Your task to perform on an android device: open app "Expedia: Hotels, Flights & Car" Image 0: 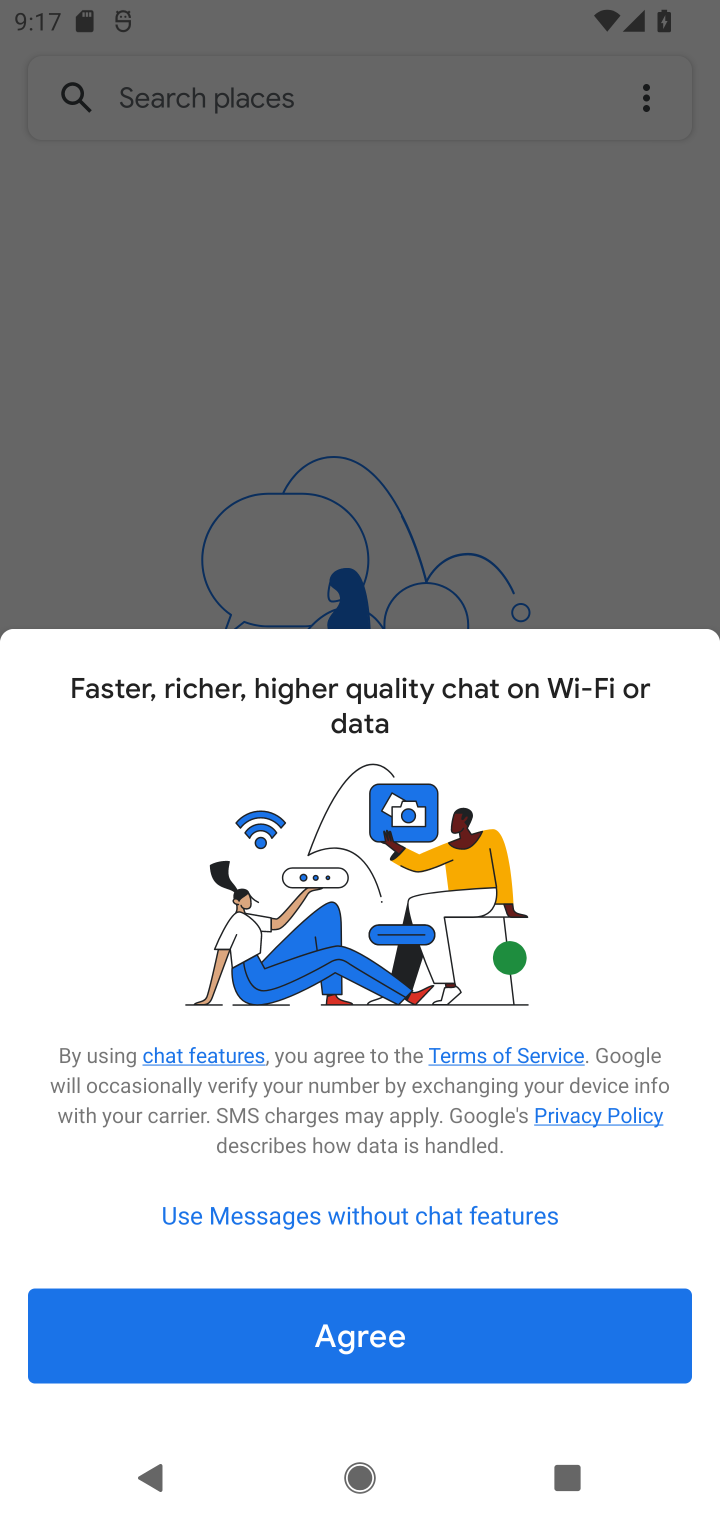
Step 0: press home button
Your task to perform on an android device: open app "Expedia: Hotels, Flights & Car" Image 1: 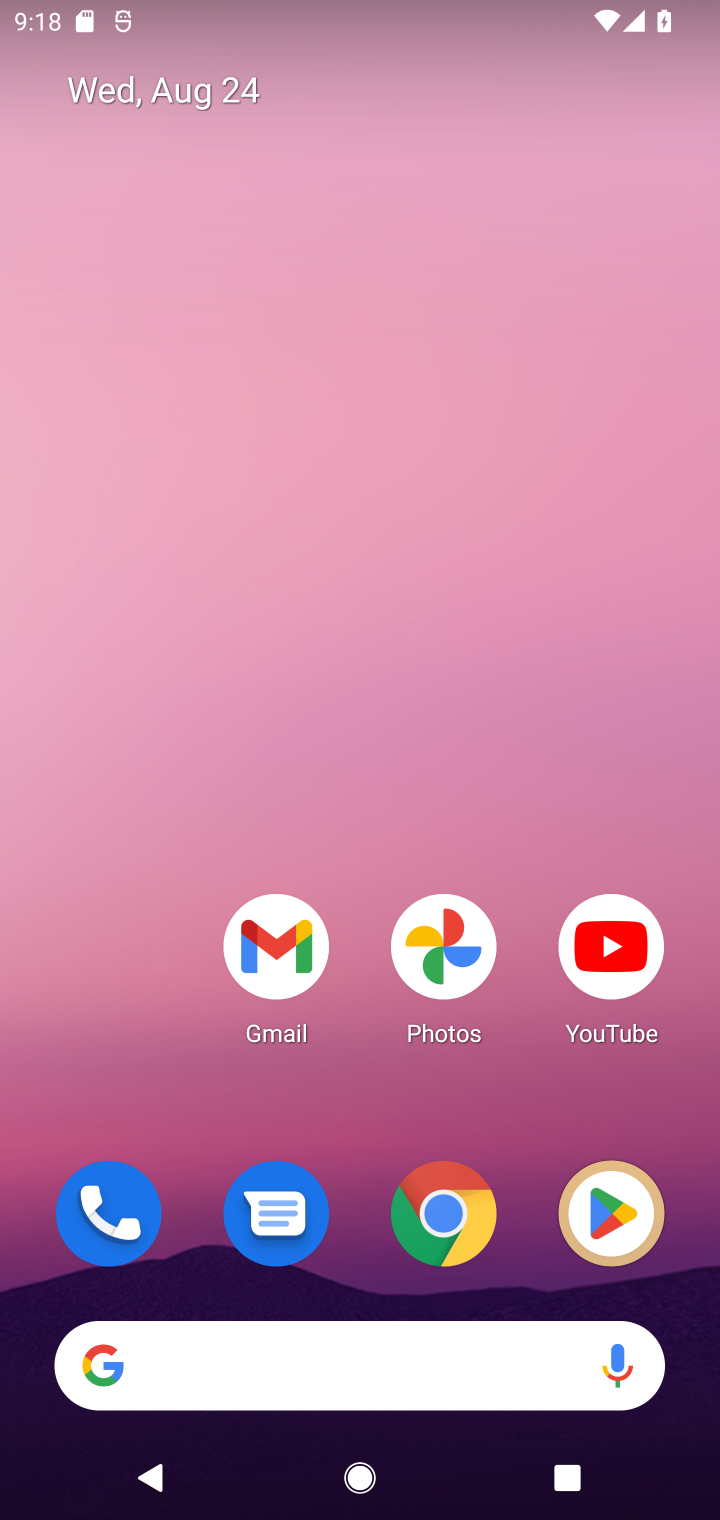
Step 1: drag from (329, 1260) to (340, 32)
Your task to perform on an android device: open app "Expedia: Hotels, Flights & Car" Image 2: 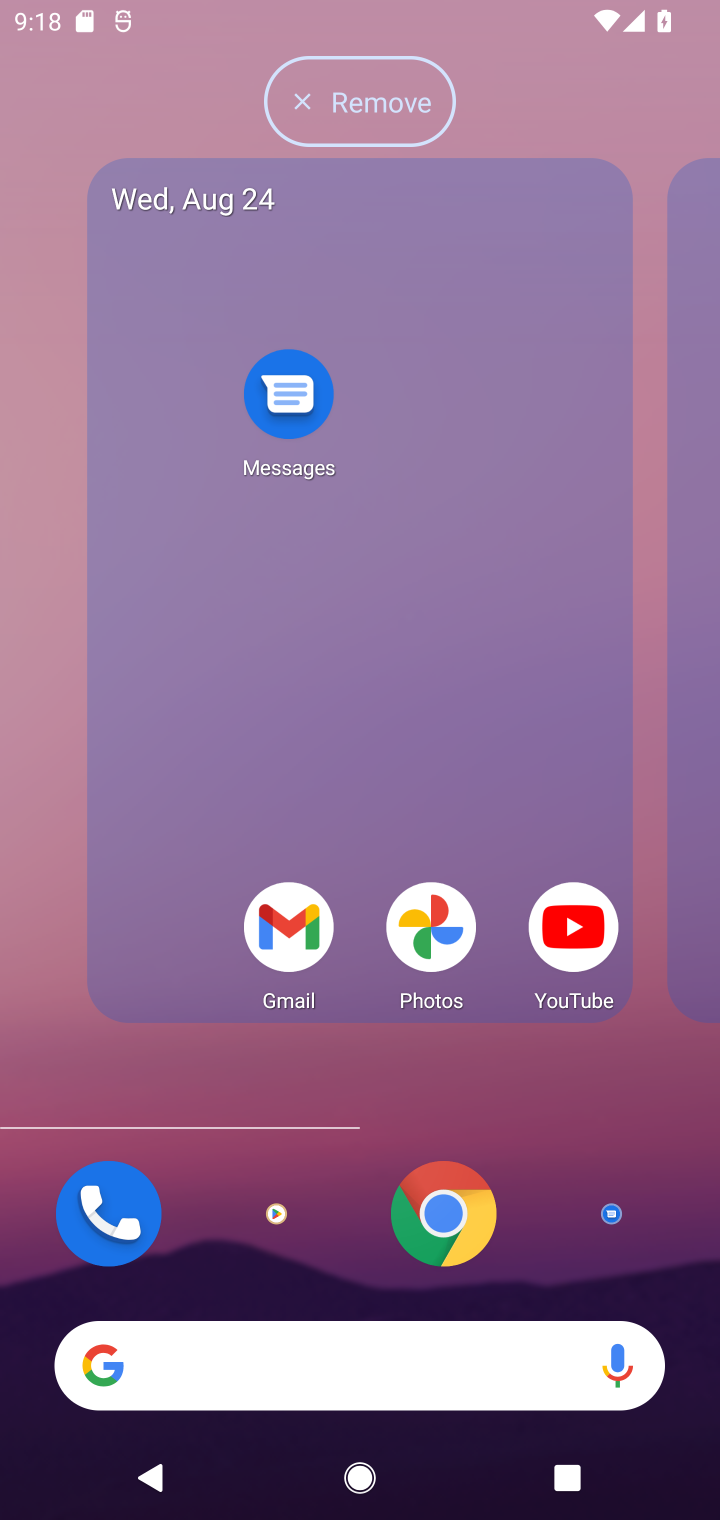
Step 2: click (96, 933)
Your task to perform on an android device: open app "Expedia: Hotels, Flights & Car" Image 3: 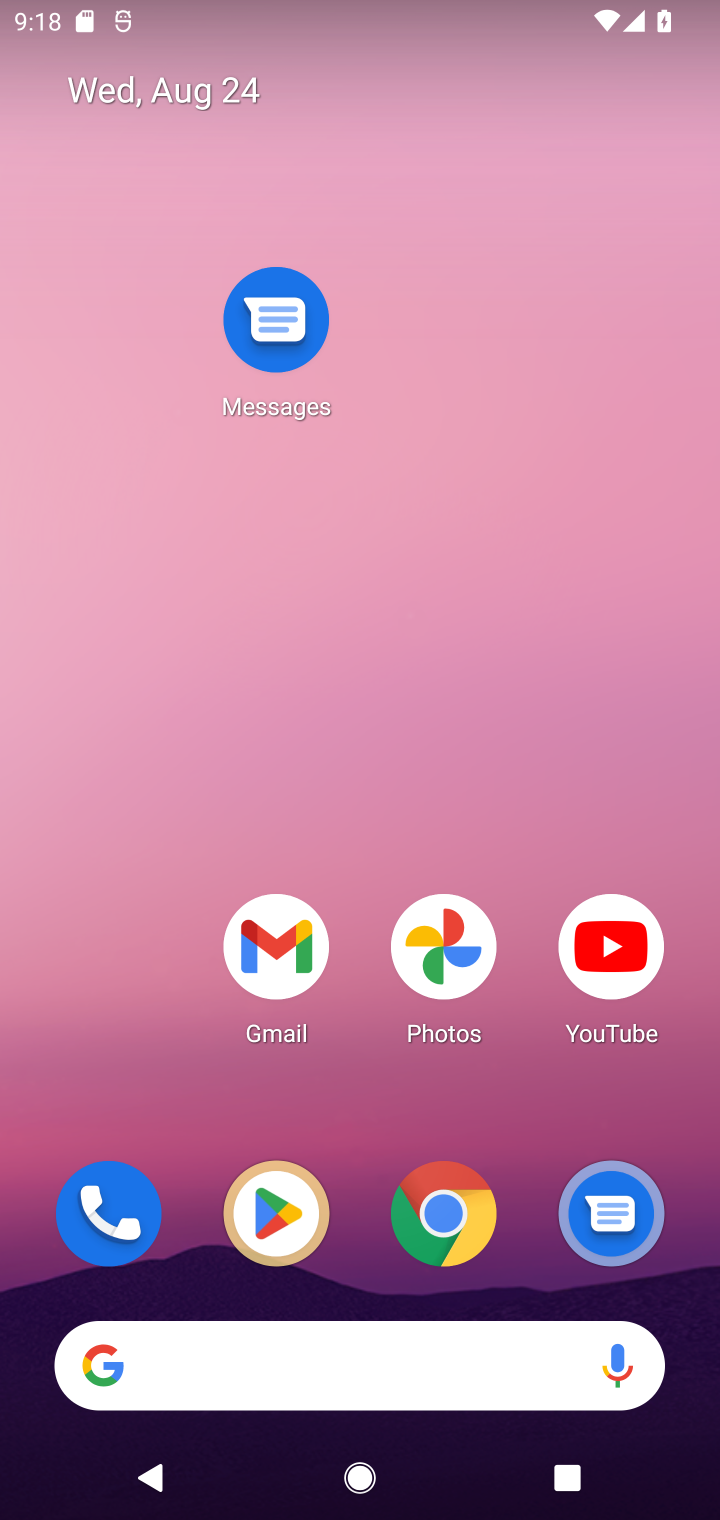
Step 3: click (301, 1223)
Your task to perform on an android device: open app "Expedia: Hotels, Flights & Car" Image 4: 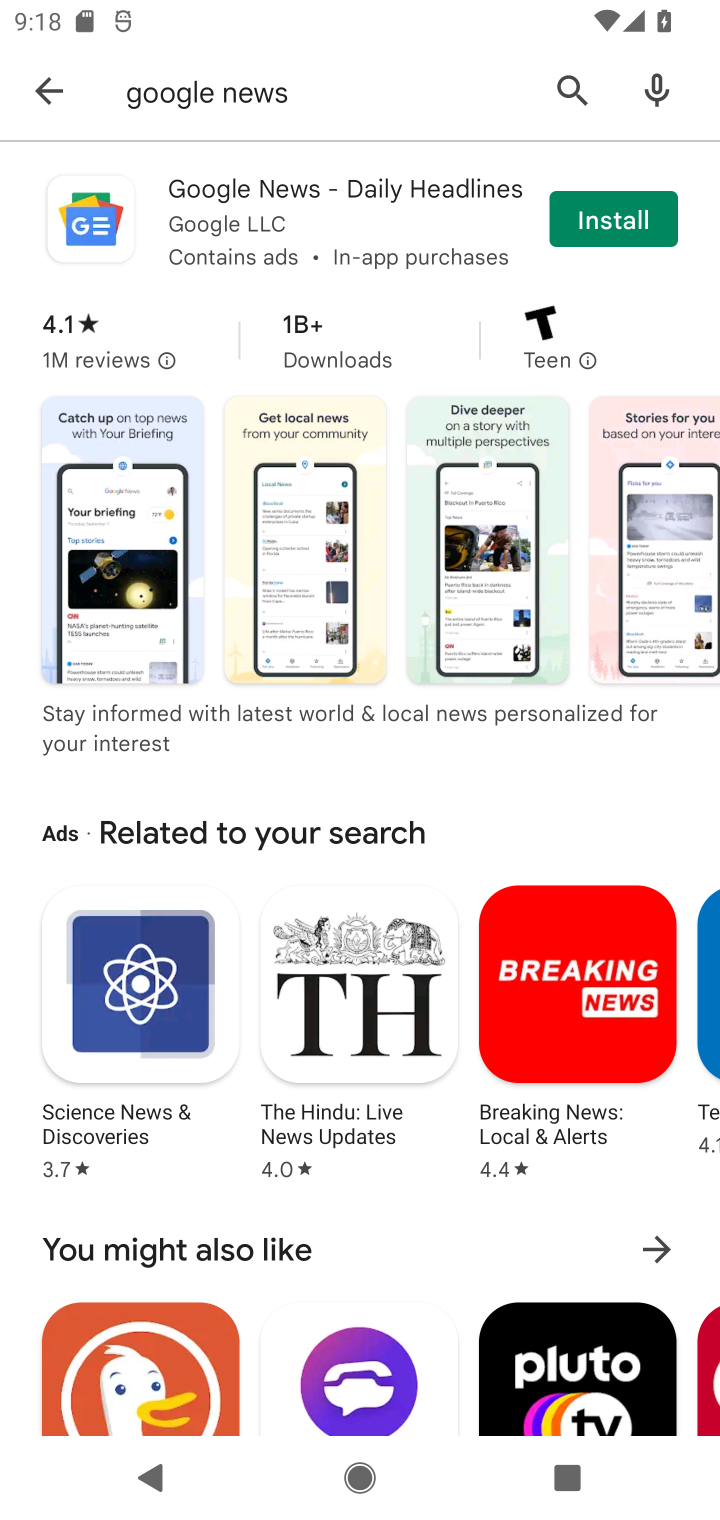
Step 4: click (314, 98)
Your task to perform on an android device: open app "Expedia: Hotels, Flights & Car" Image 5: 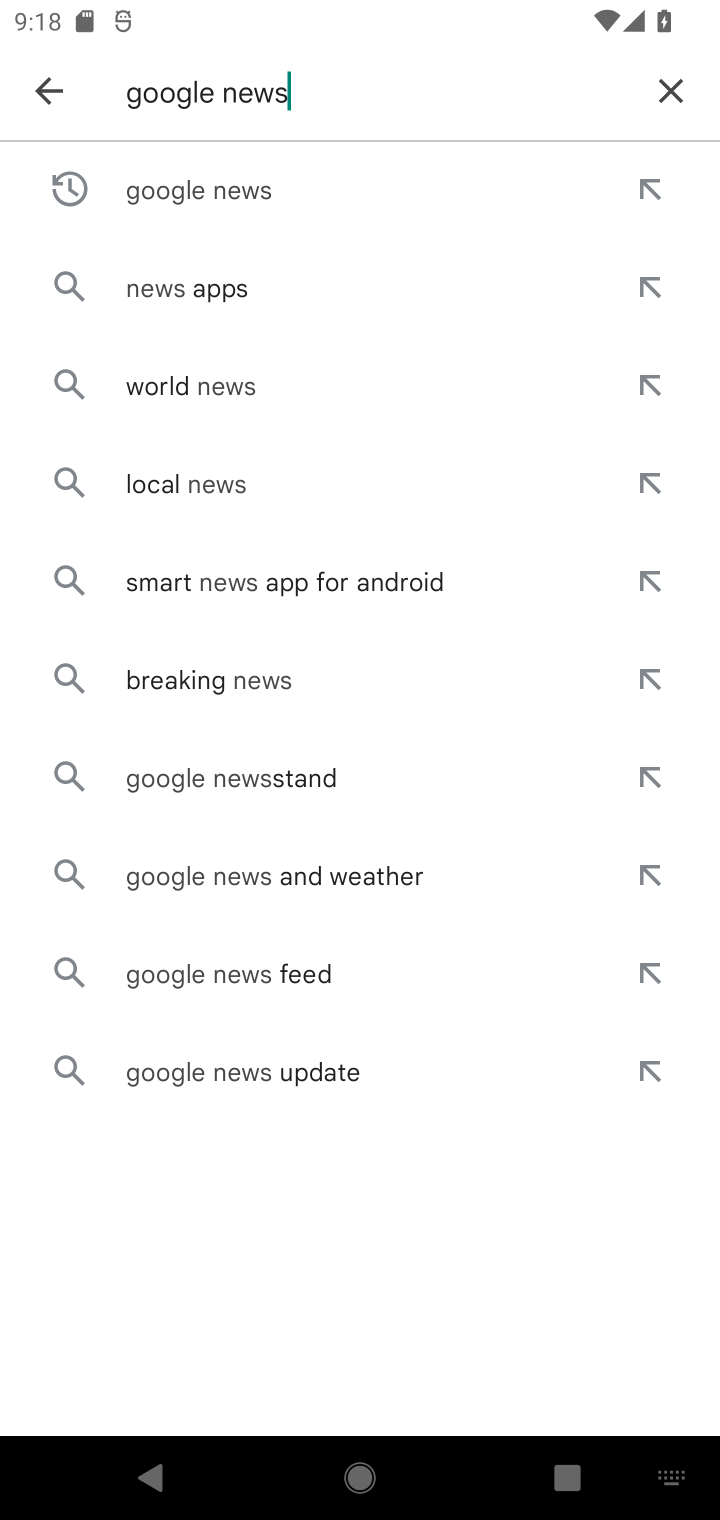
Step 5: click (677, 88)
Your task to perform on an android device: open app "Expedia: Hotels, Flights & Car" Image 6: 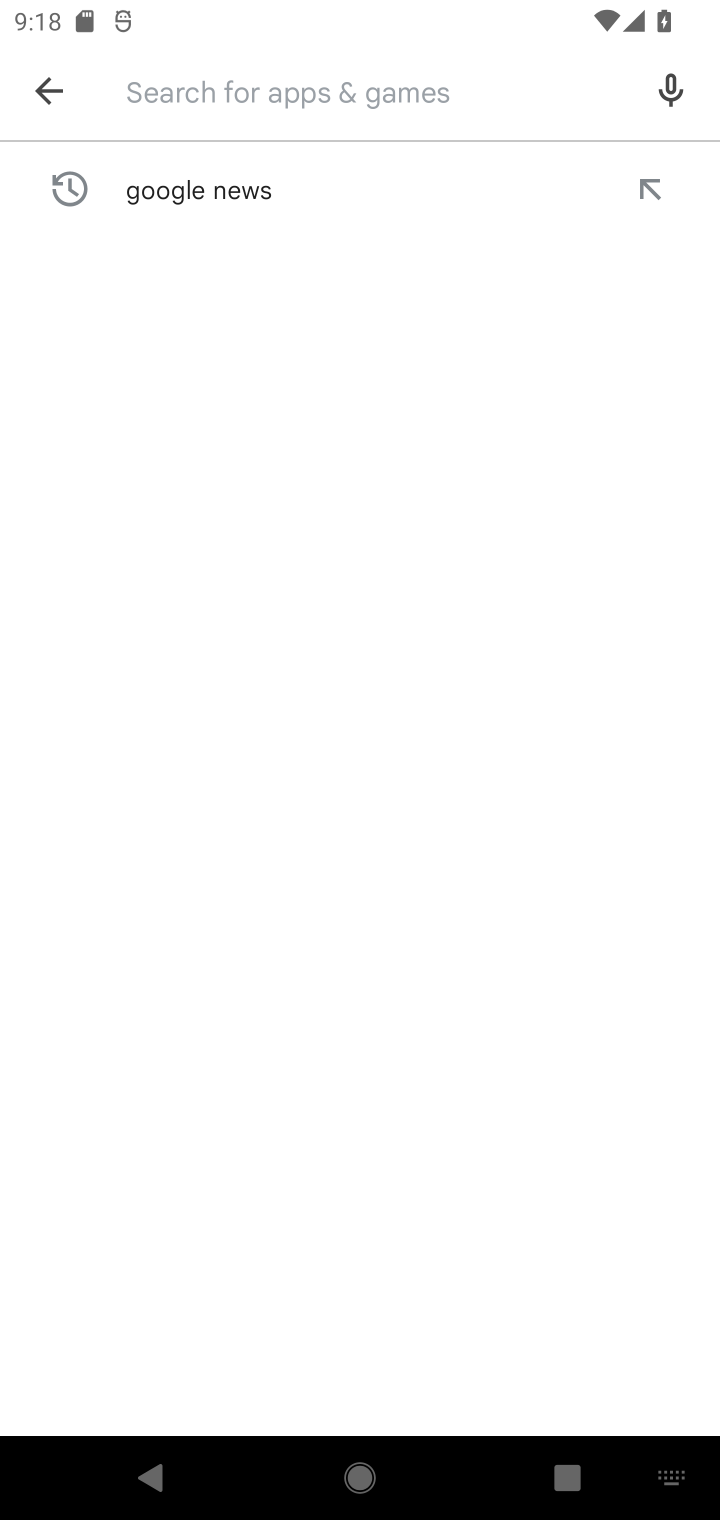
Step 6: type "expedia"
Your task to perform on an android device: open app "Expedia: Hotels, Flights & Car" Image 7: 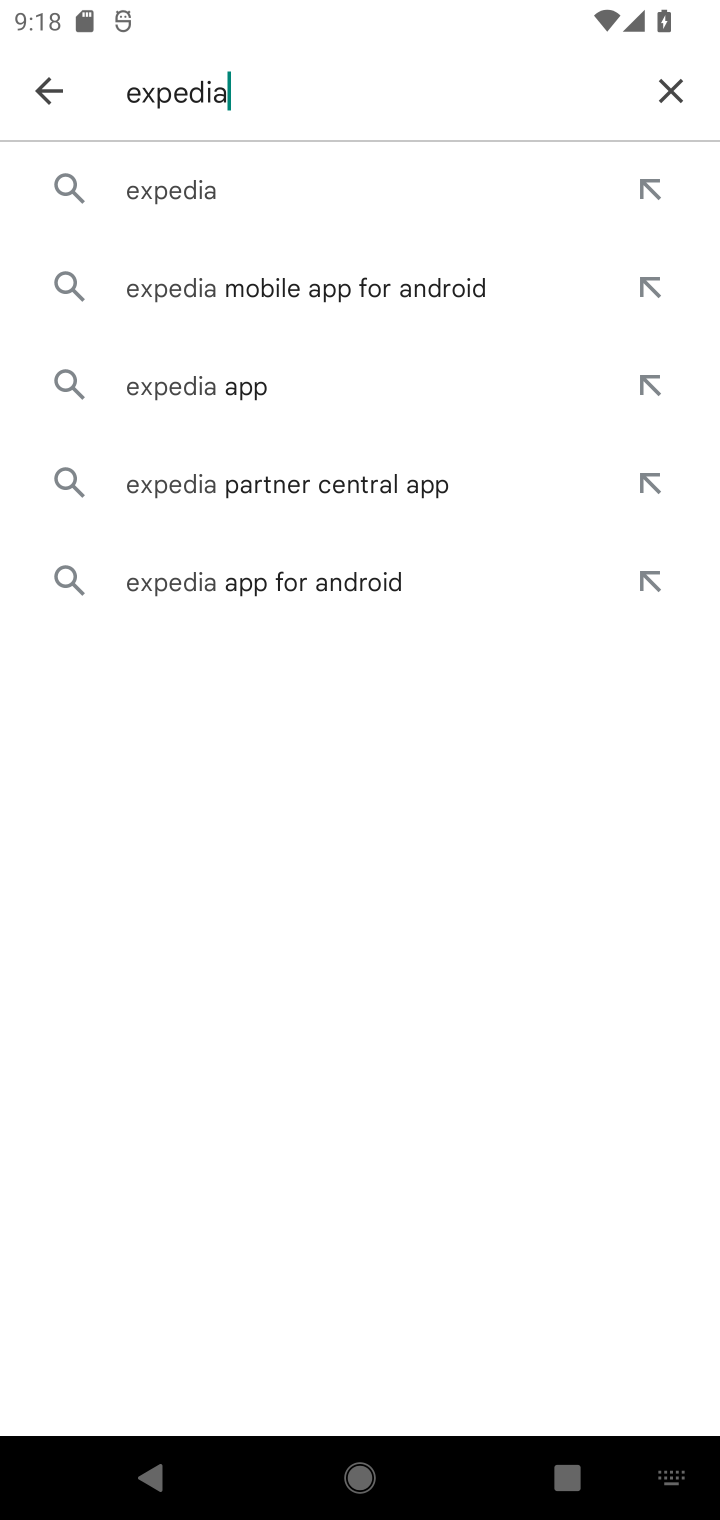
Step 7: click (167, 170)
Your task to perform on an android device: open app "Expedia: Hotels, Flights & Car" Image 8: 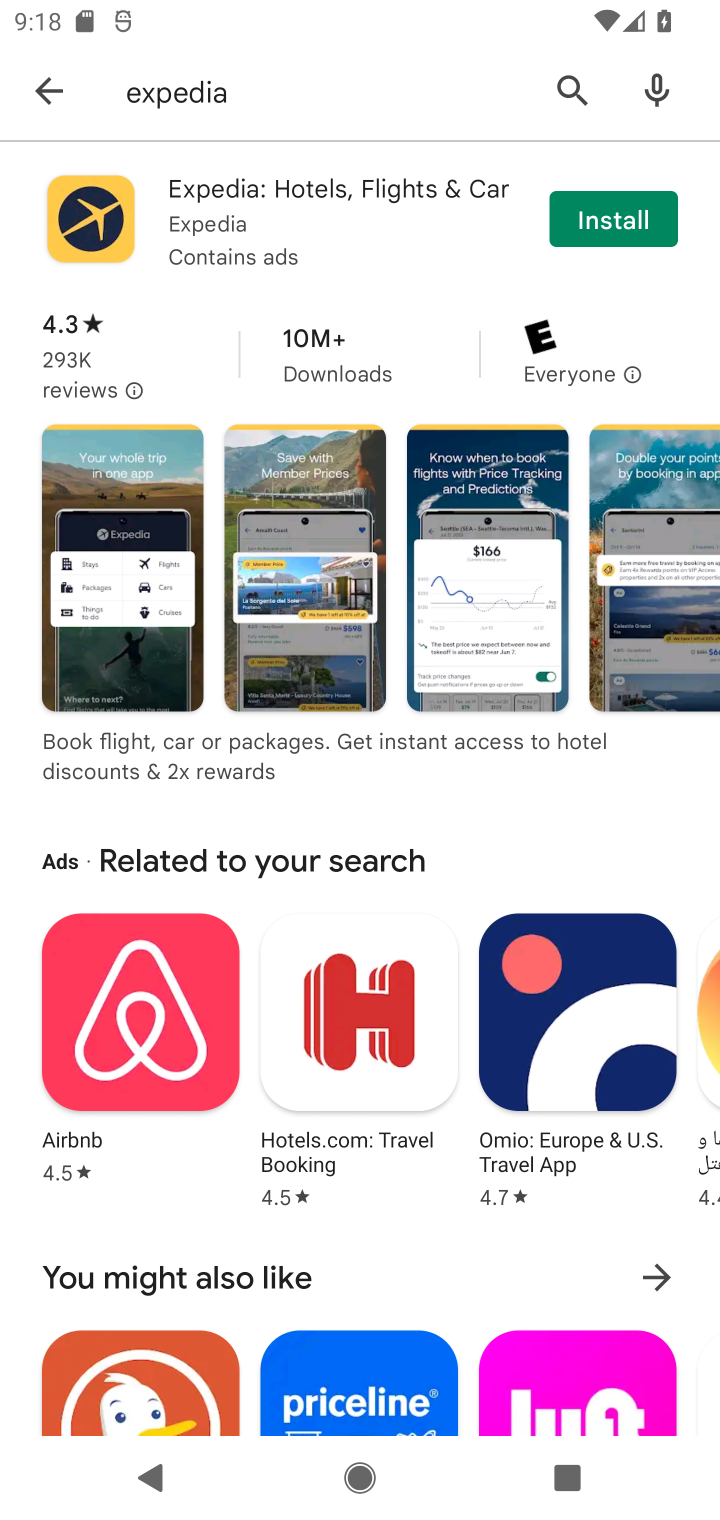
Step 8: task complete